Your task to perform on an android device: turn on javascript in the chrome app Image 0: 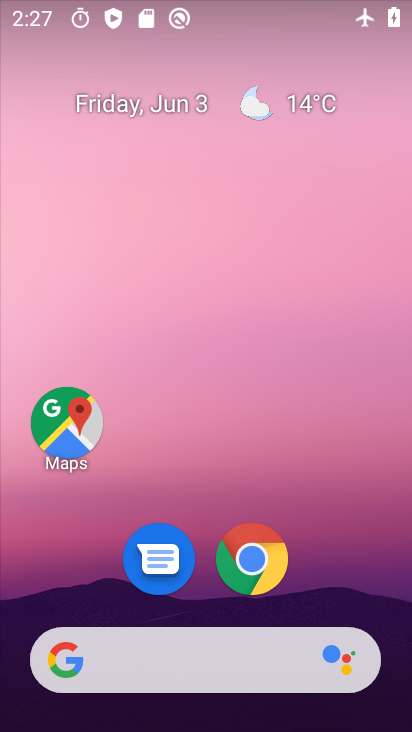
Step 0: click (245, 565)
Your task to perform on an android device: turn on javascript in the chrome app Image 1: 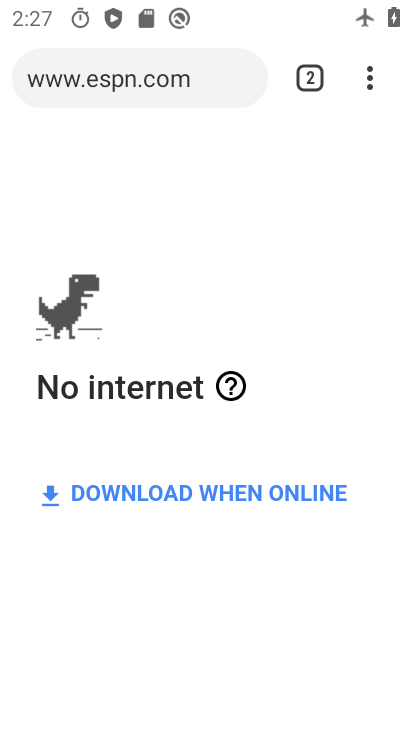
Step 1: click (359, 81)
Your task to perform on an android device: turn on javascript in the chrome app Image 2: 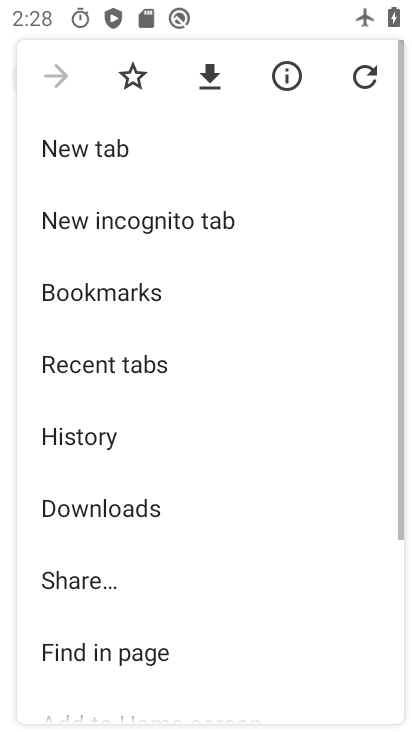
Step 2: drag from (265, 553) to (207, 161)
Your task to perform on an android device: turn on javascript in the chrome app Image 3: 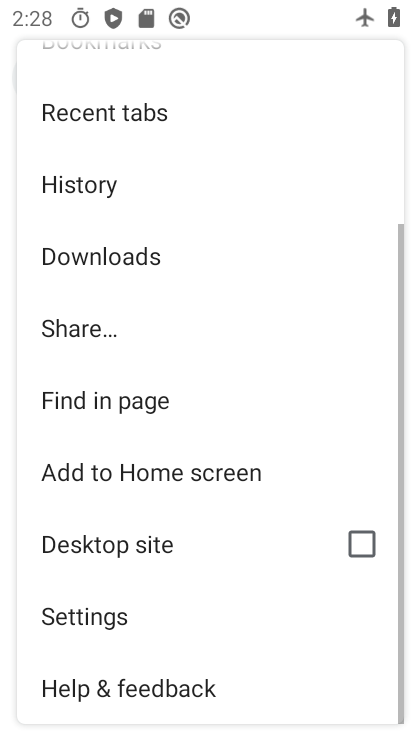
Step 3: click (84, 624)
Your task to perform on an android device: turn on javascript in the chrome app Image 4: 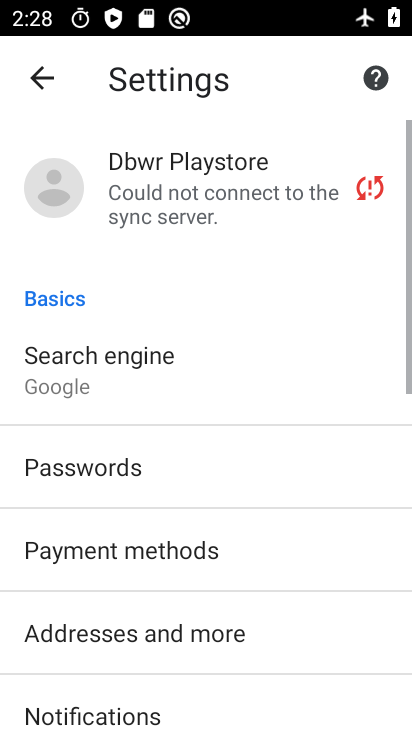
Step 4: drag from (87, 616) to (68, 116)
Your task to perform on an android device: turn on javascript in the chrome app Image 5: 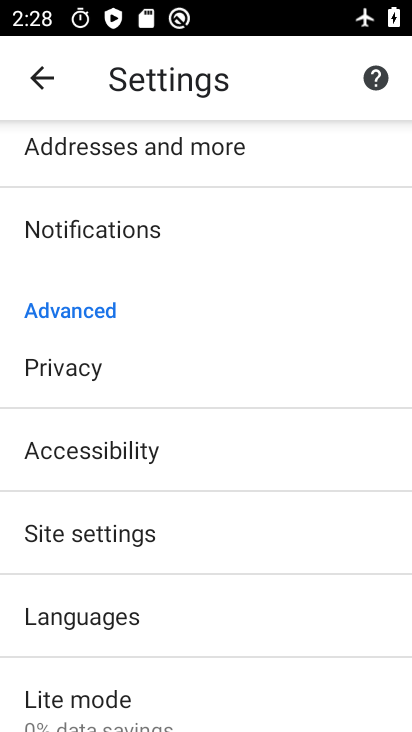
Step 5: click (72, 541)
Your task to perform on an android device: turn on javascript in the chrome app Image 6: 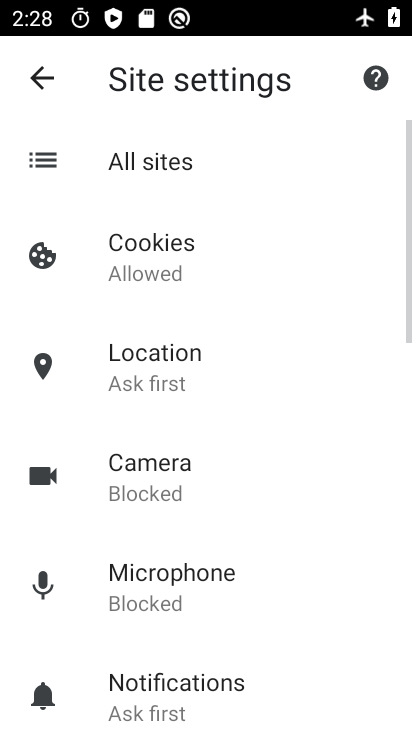
Step 6: drag from (126, 677) to (65, 157)
Your task to perform on an android device: turn on javascript in the chrome app Image 7: 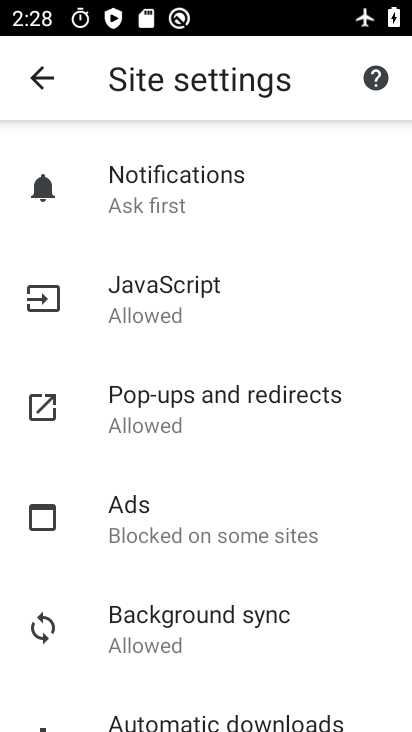
Step 7: click (109, 312)
Your task to perform on an android device: turn on javascript in the chrome app Image 8: 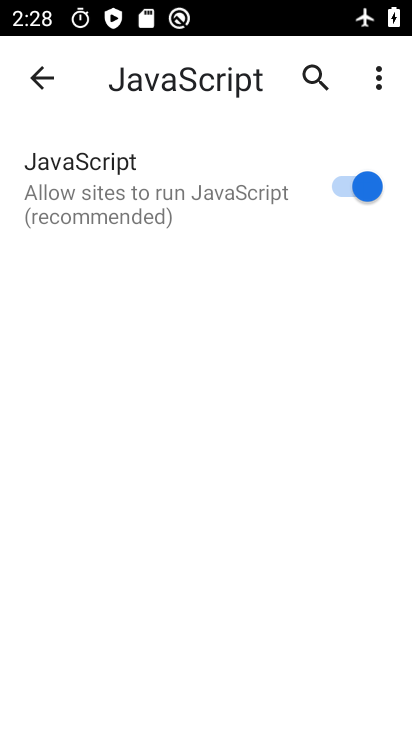
Step 8: task complete